Your task to perform on an android device: Open location settings Image 0: 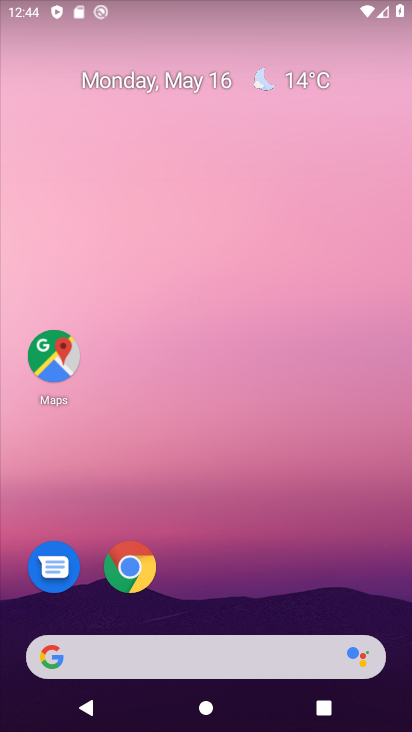
Step 0: drag from (224, 558) to (112, 58)
Your task to perform on an android device: Open location settings Image 1: 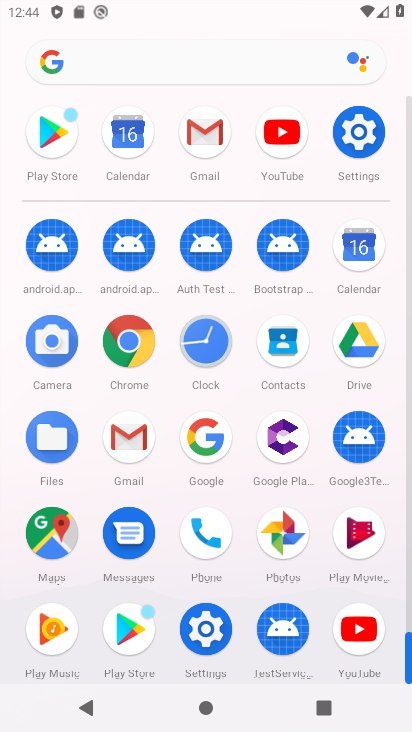
Step 1: click (364, 133)
Your task to perform on an android device: Open location settings Image 2: 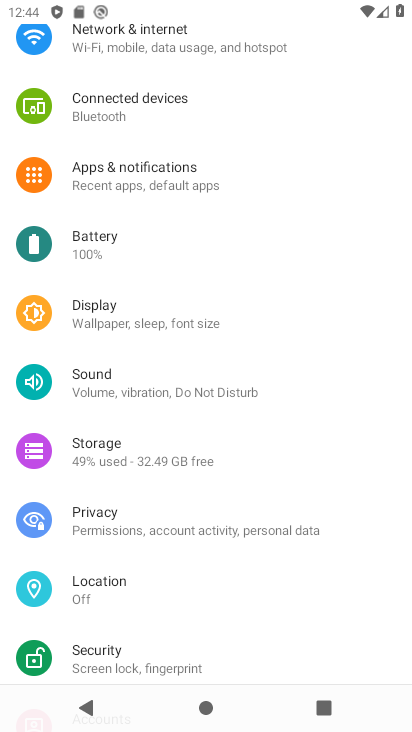
Step 2: click (91, 581)
Your task to perform on an android device: Open location settings Image 3: 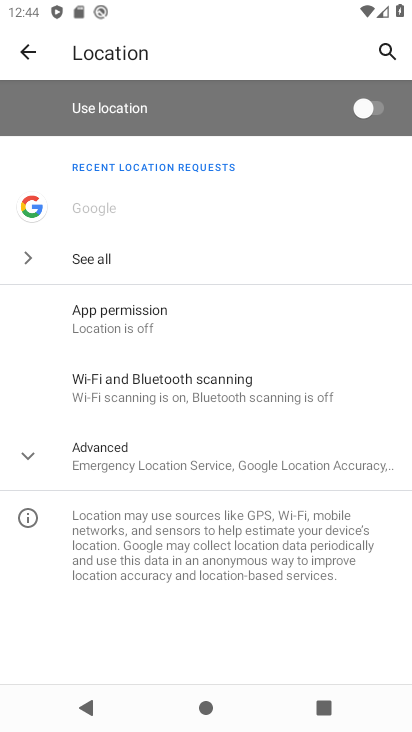
Step 3: task complete